Your task to perform on an android device: See recent photos Image 0: 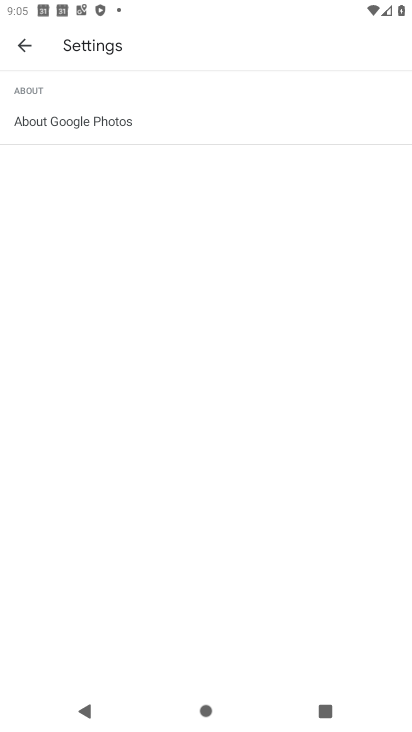
Step 0: press home button
Your task to perform on an android device: See recent photos Image 1: 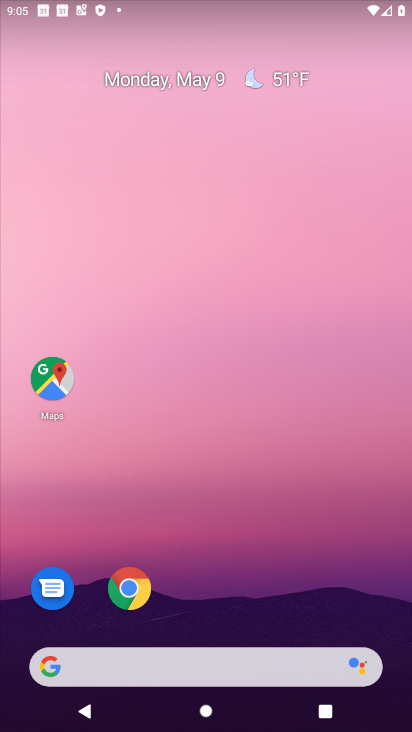
Step 1: drag from (280, 556) to (263, 112)
Your task to perform on an android device: See recent photos Image 2: 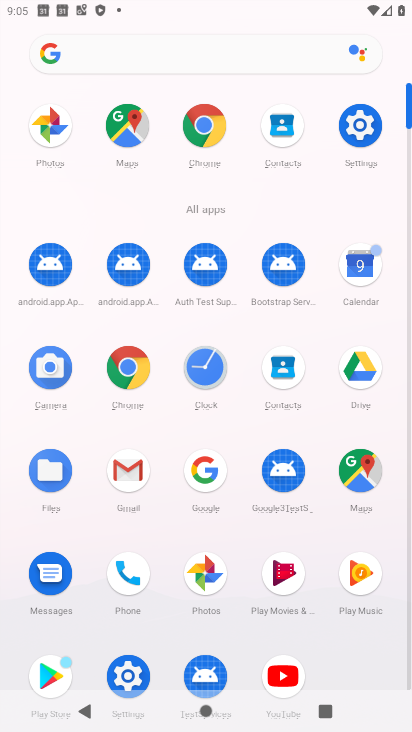
Step 2: click (196, 569)
Your task to perform on an android device: See recent photos Image 3: 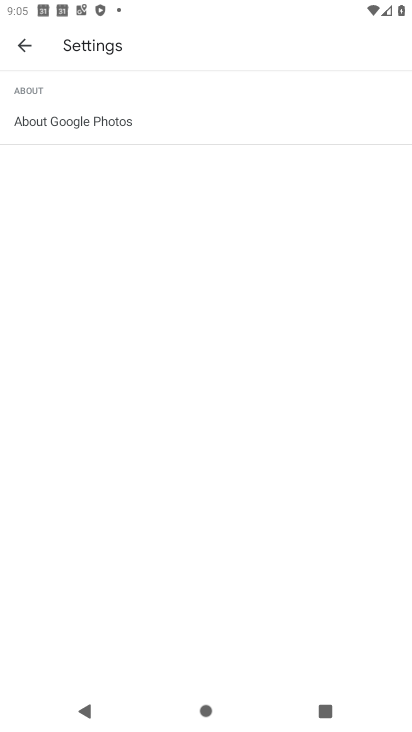
Step 3: click (28, 40)
Your task to perform on an android device: See recent photos Image 4: 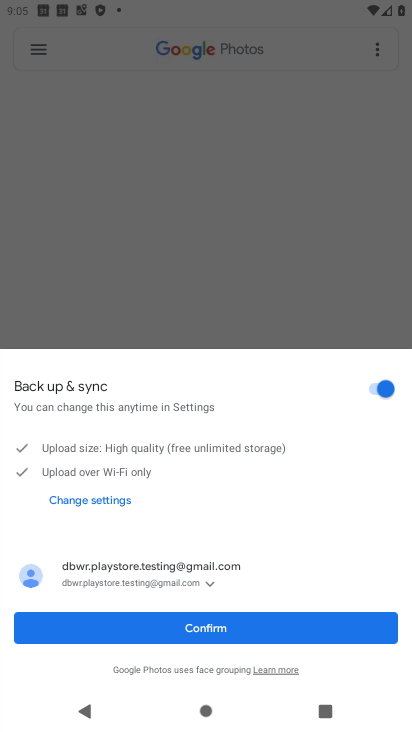
Step 4: click (163, 615)
Your task to perform on an android device: See recent photos Image 5: 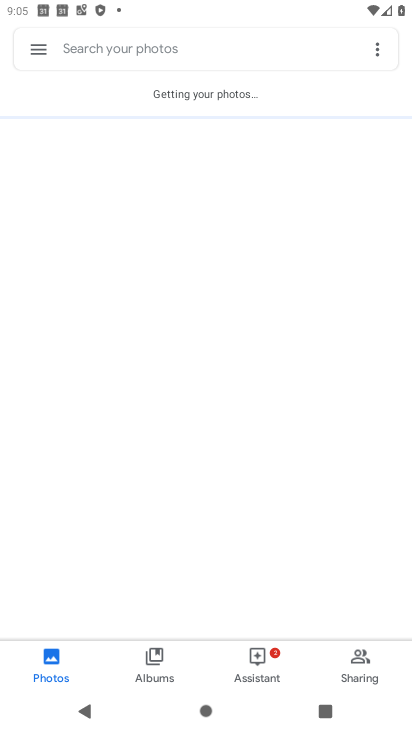
Step 5: task complete